Your task to perform on an android device: What's the weather going to be tomorrow? Image 0: 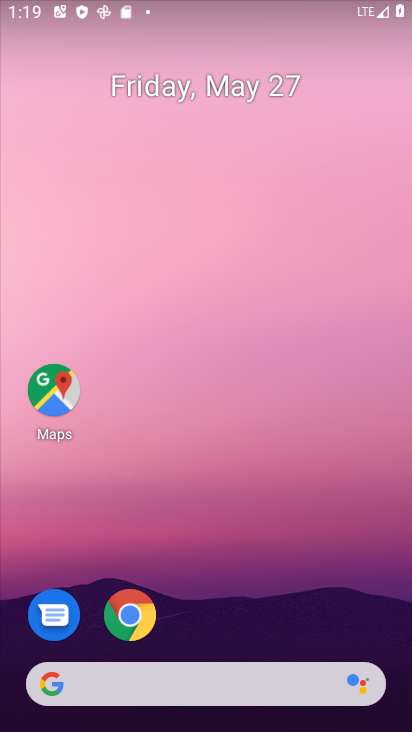
Step 0: drag from (59, 267) to (406, 299)
Your task to perform on an android device: What's the weather going to be tomorrow? Image 1: 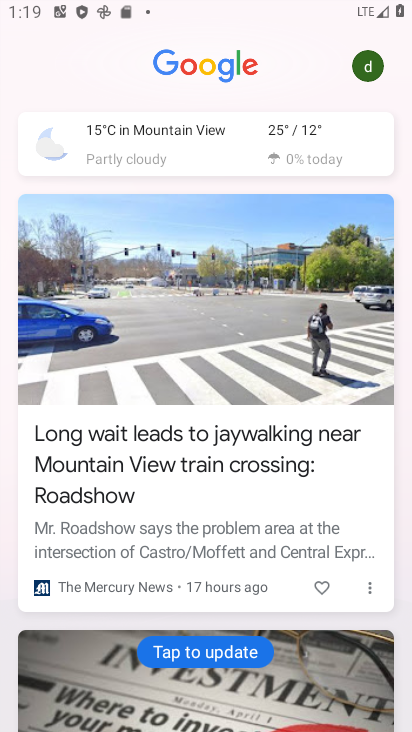
Step 1: click (178, 153)
Your task to perform on an android device: What's the weather going to be tomorrow? Image 2: 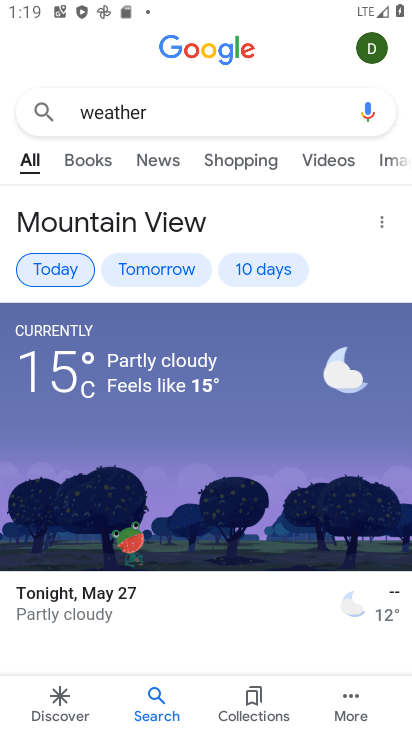
Step 2: click (167, 268)
Your task to perform on an android device: What's the weather going to be tomorrow? Image 3: 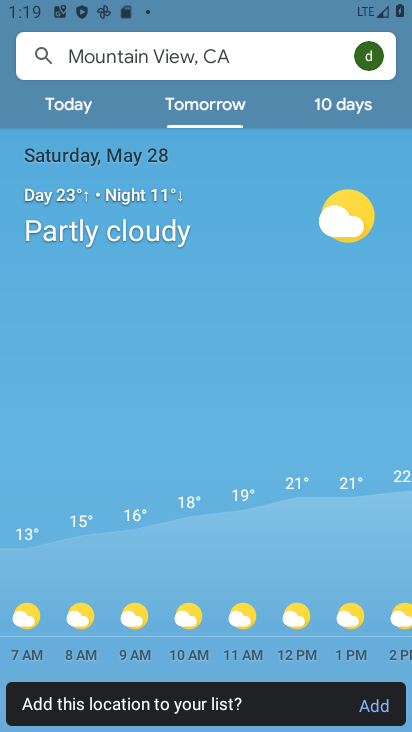
Step 3: task complete